Your task to perform on an android device: turn off airplane mode Image 0: 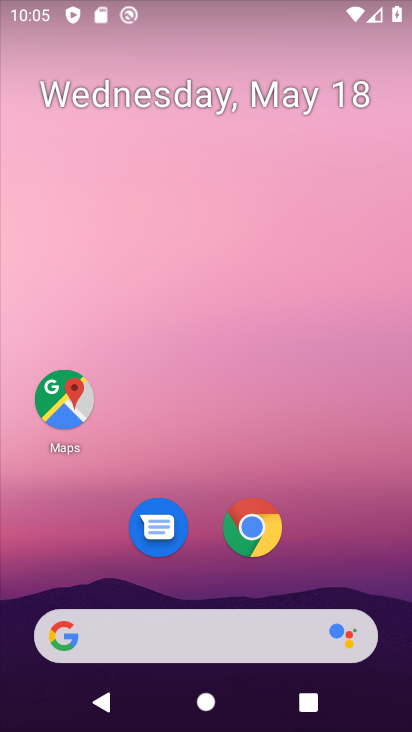
Step 0: drag from (332, 526) to (219, 84)
Your task to perform on an android device: turn off airplane mode Image 1: 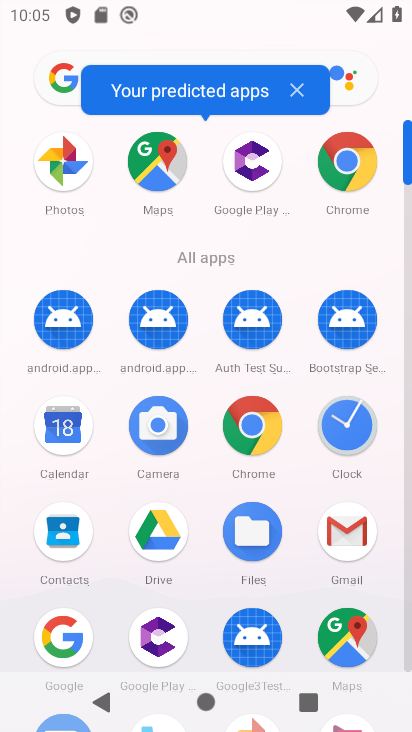
Step 1: click (409, 521)
Your task to perform on an android device: turn off airplane mode Image 2: 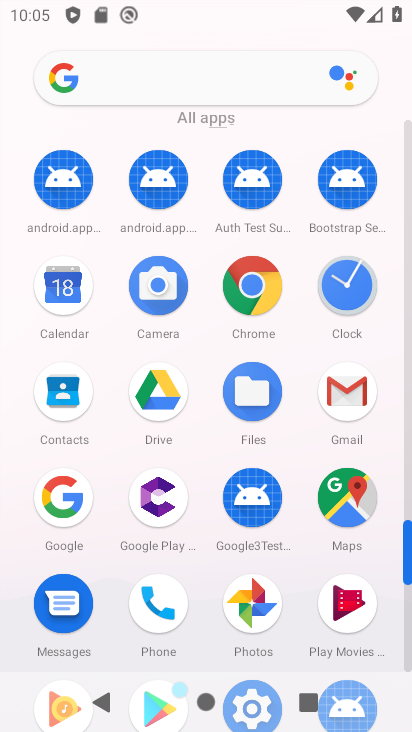
Step 2: click (407, 656)
Your task to perform on an android device: turn off airplane mode Image 3: 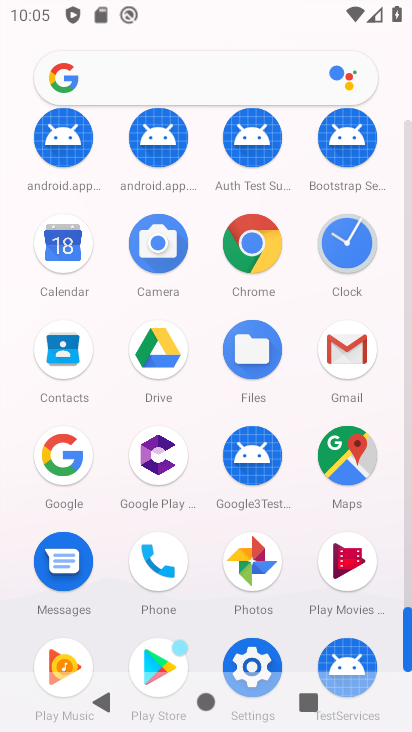
Step 3: click (243, 654)
Your task to perform on an android device: turn off airplane mode Image 4: 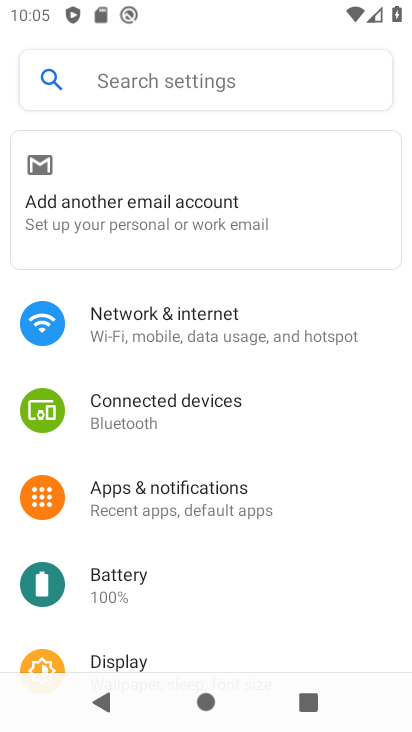
Step 4: click (207, 310)
Your task to perform on an android device: turn off airplane mode Image 5: 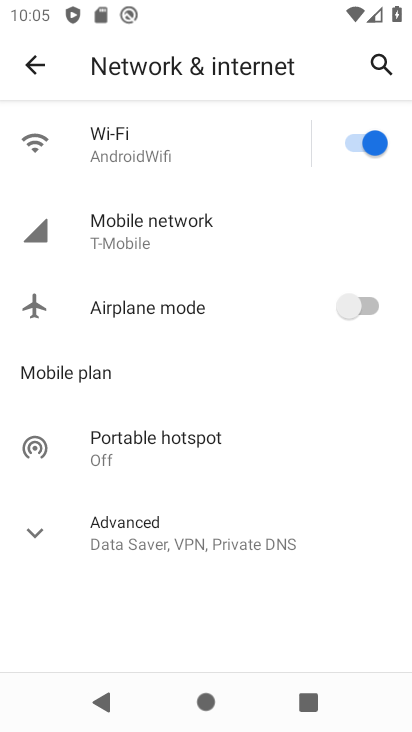
Step 5: task complete